Your task to perform on an android device: Search for sushi restaurants on Maps Image 0: 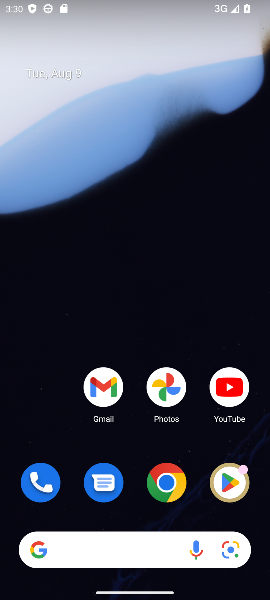
Step 0: drag from (134, 442) to (139, 159)
Your task to perform on an android device: Search for sushi restaurants on Maps Image 1: 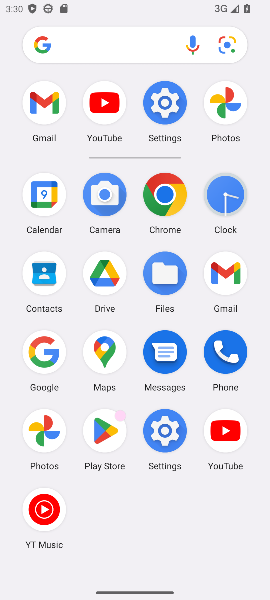
Step 1: click (105, 342)
Your task to perform on an android device: Search for sushi restaurants on Maps Image 2: 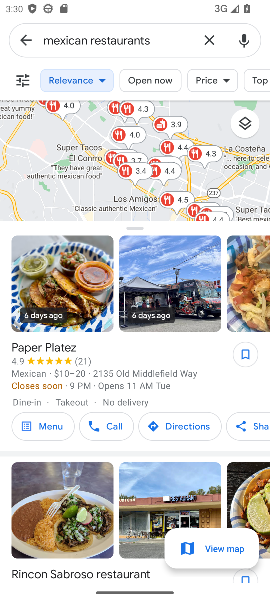
Step 2: click (211, 38)
Your task to perform on an android device: Search for sushi restaurants on Maps Image 3: 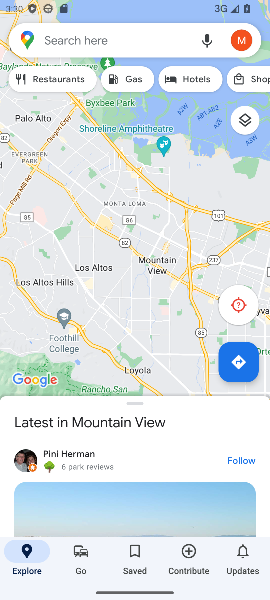
Step 3: click (78, 34)
Your task to perform on an android device: Search for sushi restaurants on Maps Image 4: 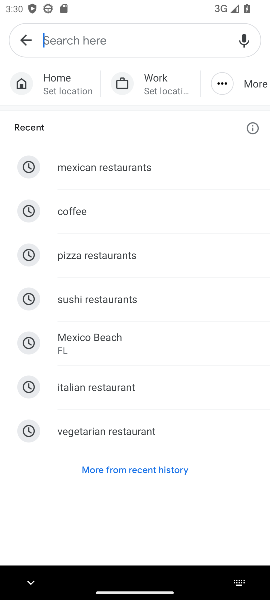
Step 4: click (102, 296)
Your task to perform on an android device: Search for sushi restaurants on Maps Image 5: 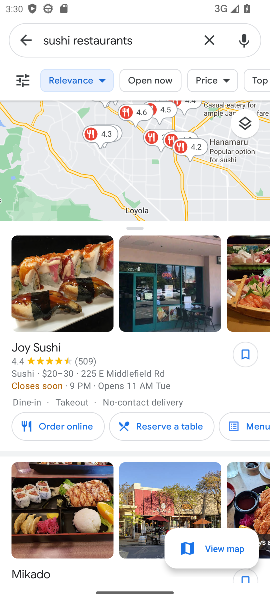
Step 5: task complete